Your task to perform on an android device: Do I have any events tomorrow? Image 0: 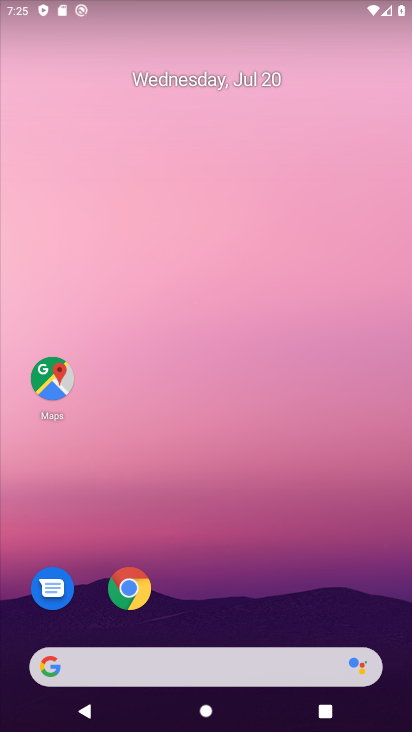
Step 0: drag from (235, 31) to (294, 21)
Your task to perform on an android device: Do I have any events tomorrow? Image 1: 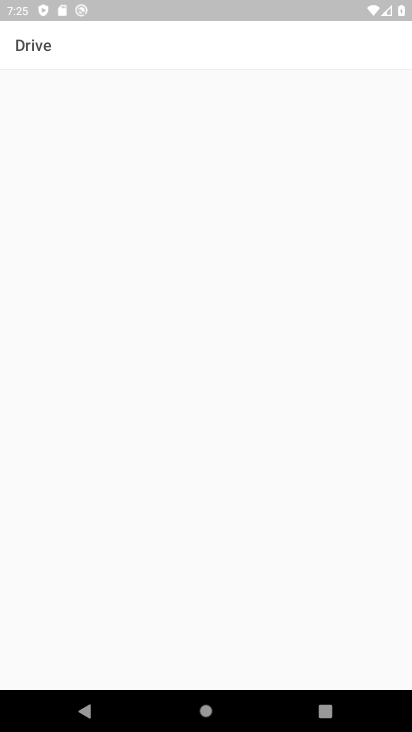
Step 1: press home button
Your task to perform on an android device: Do I have any events tomorrow? Image 2: 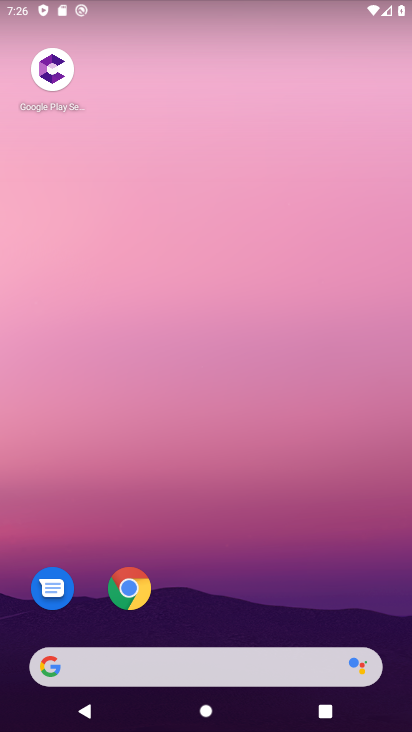
Step 2: drag from (145, 720) to (162, 42)
Your task to perform on an android device: Do I have any events tomorrow? Image 3: 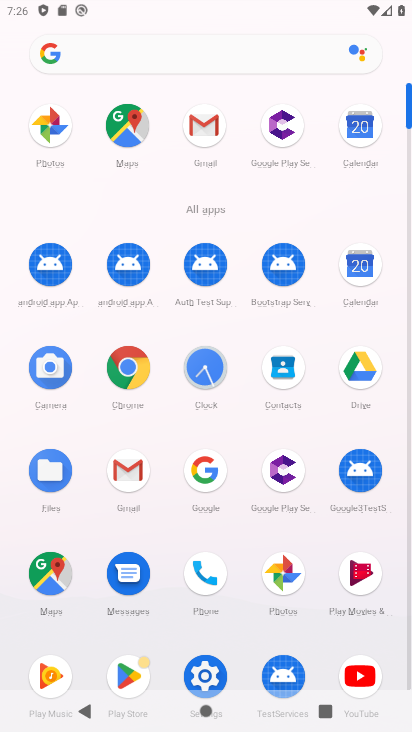
Step 3: click (363, 266)
Your task to perform on an android device: Do I have any events tomorrow? Image 4: 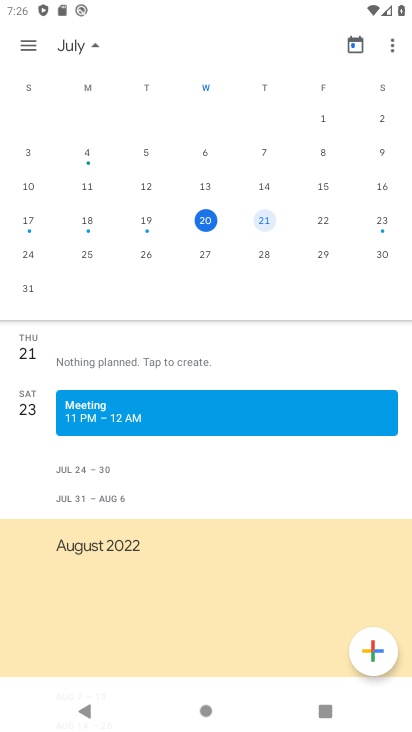
Step 4: click (261, 224)
Your task to perform on an android device: Do I have any events tomorrow? Image 5: 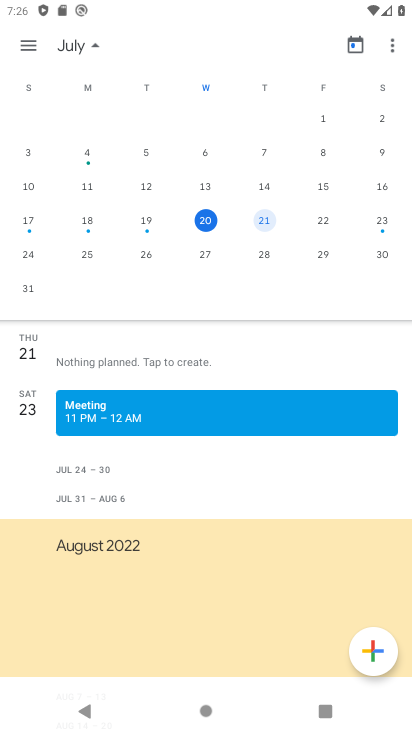
Step 5: task complete